Your task to perform on an android device: change the upload size in google photos Image 0: 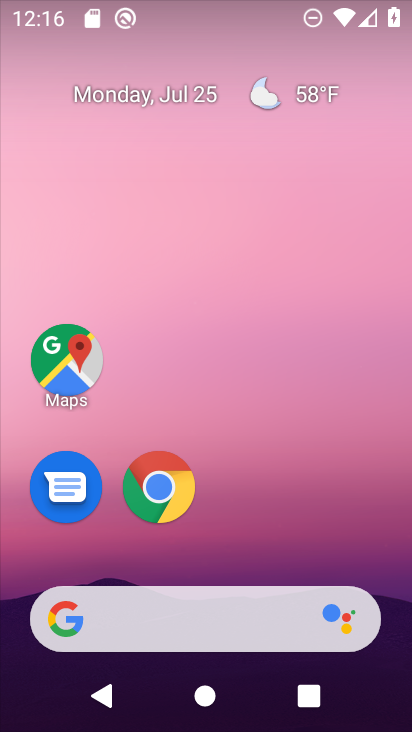
Step 0: drag from (254, 286) to (382, 124)
Your task to perform on an android device: change the upload size in google photos Image 1: 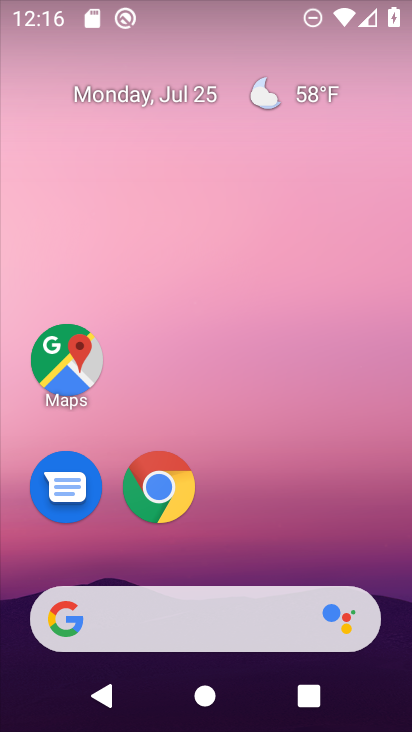
Step 1: drag from (269, 421) to (339, 3)
Your task to perform on an android device: change the upload size in google photos Image 2: 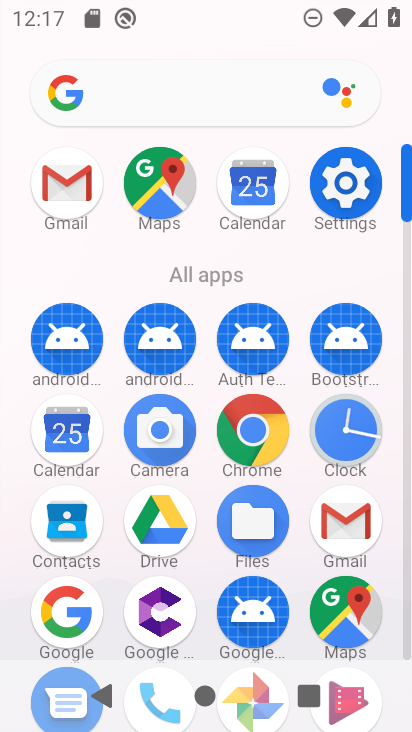
Step 2: drag from (158, 634) to (227, 171)
Your task to perform on an android device: change the upload size in google photos Image 3: 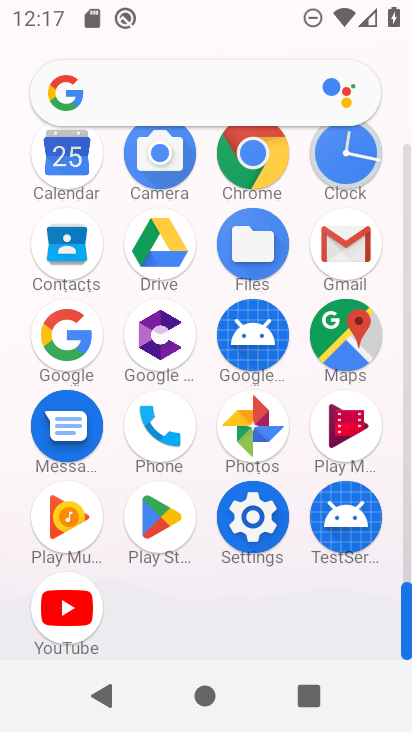
Step 3: click (257, 423)
Your task to perform on an android device: change the upload size in google photos Image 4: 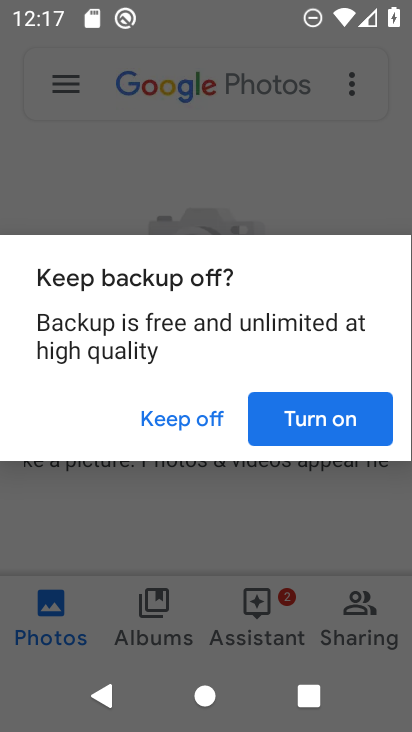
Step 4: click (181, 412)
Your task to perform on an android device: change the upload size in google photos Image 5: 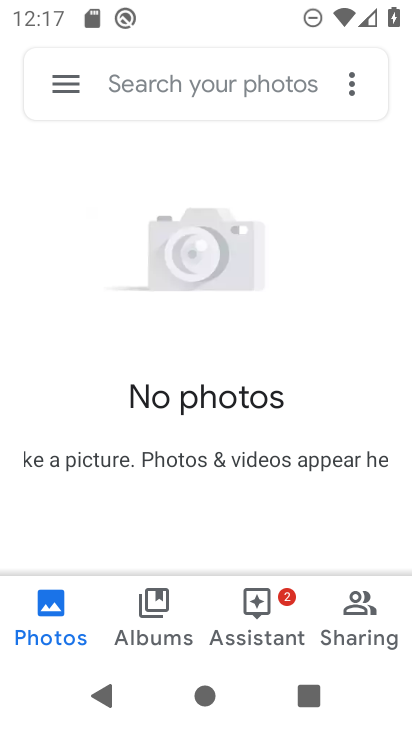
Step 5: click (70, 88)
Your task to perform on an android device: change the upload size in google photos Image 6: 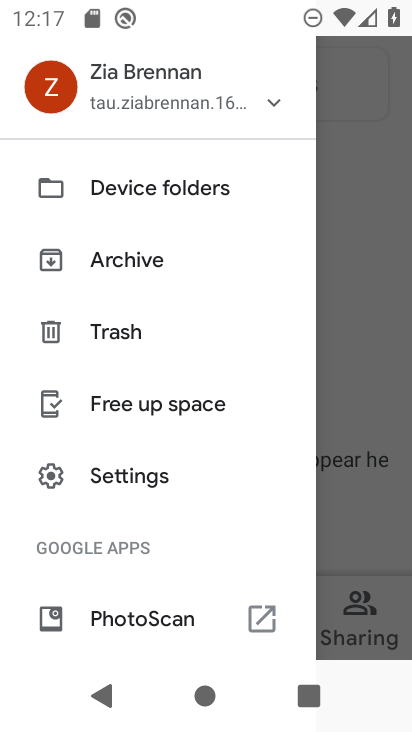
Step 6: click (106, 477)
Your task to perform on an android device: change the upload size in google photos Image 7: 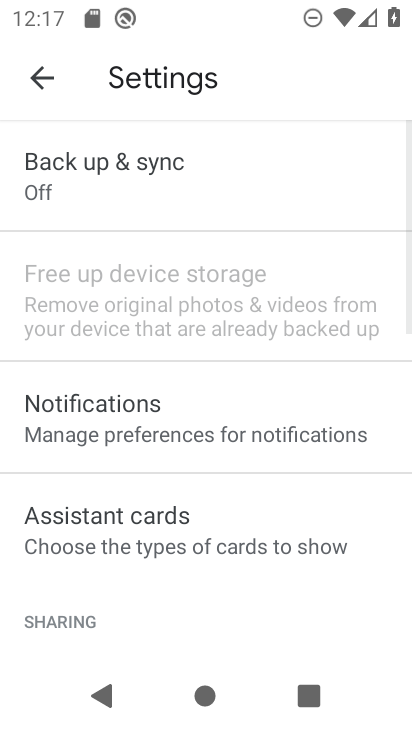
Step 7: drag from (207, 232) to (204, 700)
Your task to perform on an android device: change the upload size in google photos Image 8: 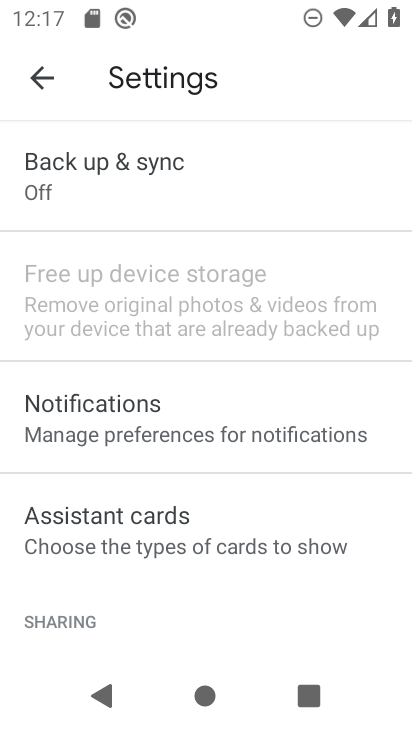
Step 8: click (179, 182)
Your task to perform on an android device: change the upload size in google photos Image 9: 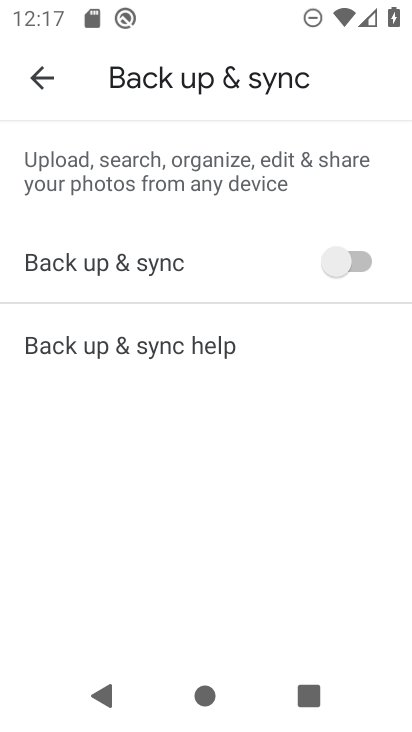
Step 9: task complete